Your task to perform on an android device: add a label to a message in the gmail app Image 0: 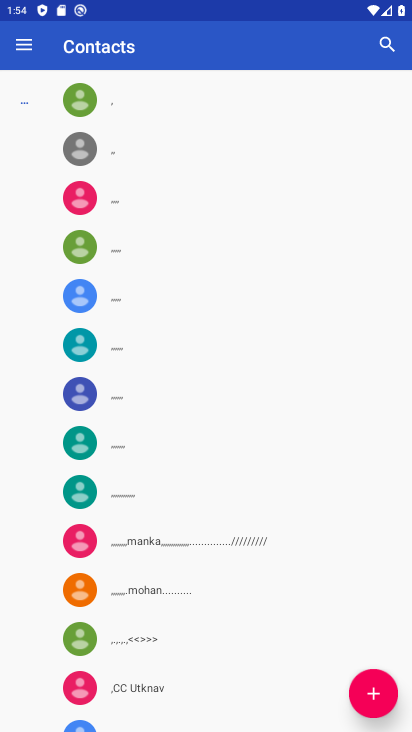
Step 0: press home button
Your task to perform on an android device: add a label to a message in the gmail app Image 1: 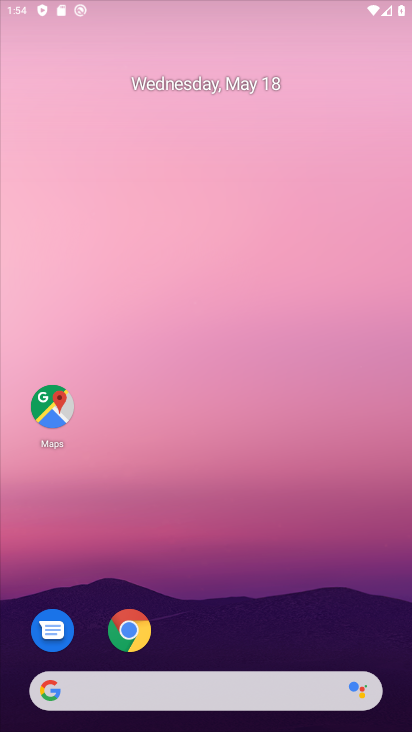
Step 1: drag from (184, 626) to (215, 181)
Your task to perform on an android device: add a label to a message in the gmail app Image 2: 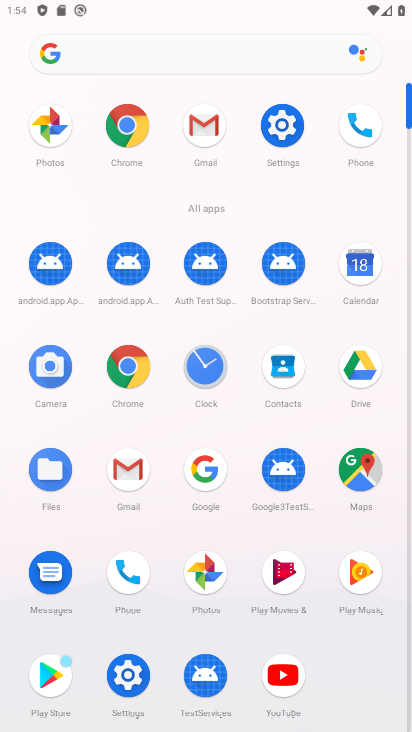
Step 2: click (215, 136)
Your task to perform on an android device: add a label to a message in the gmail app Image 3: 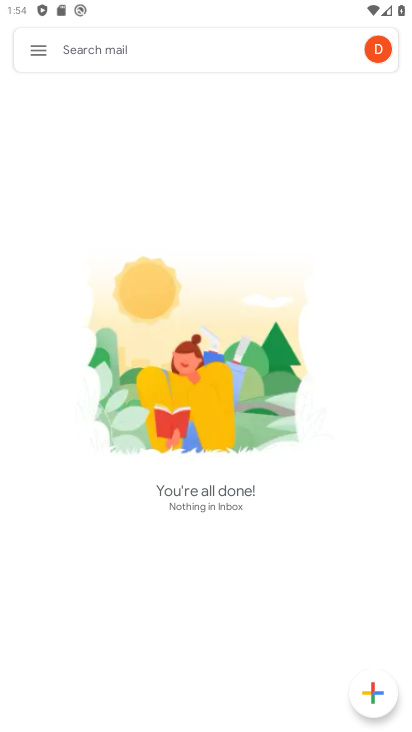
Step 3: click (49, 54)
Your task to perform on an android device: add a label to a message in the gmail app Image 4: 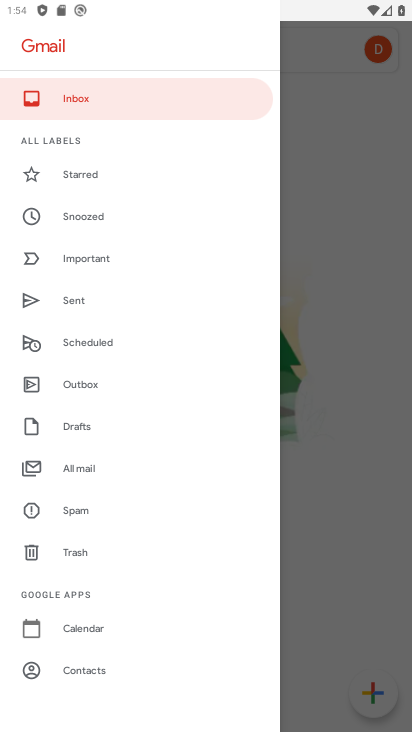
Step 4: click (94, 110)
Your task to perform on an android device: add a label to a message in the gmail app Image 5: 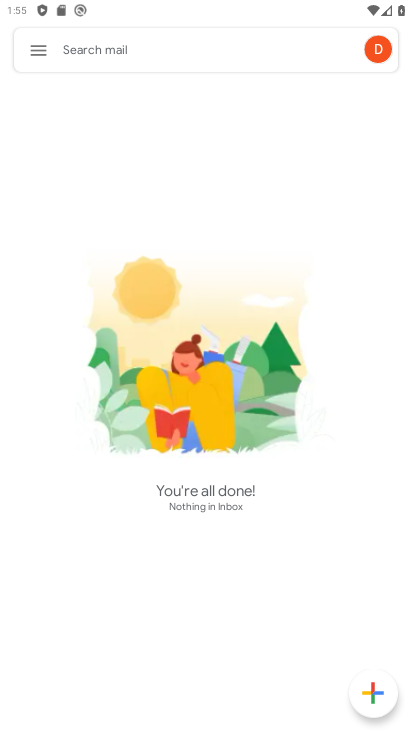
Step 5: task complete